Your task to perform on an android device: install app "NewsBreak: Local News & Alerts" Image 0: 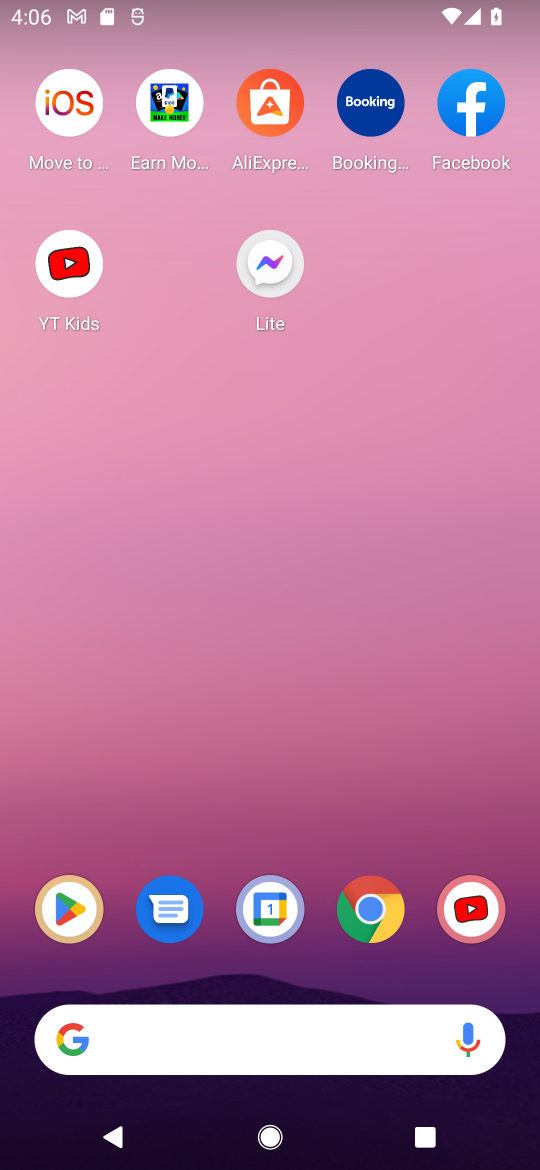
Step 0: click (72, 912)
Your task to perform on an android device: install app "NewsBreak: Local News & Alerts" Image 1: 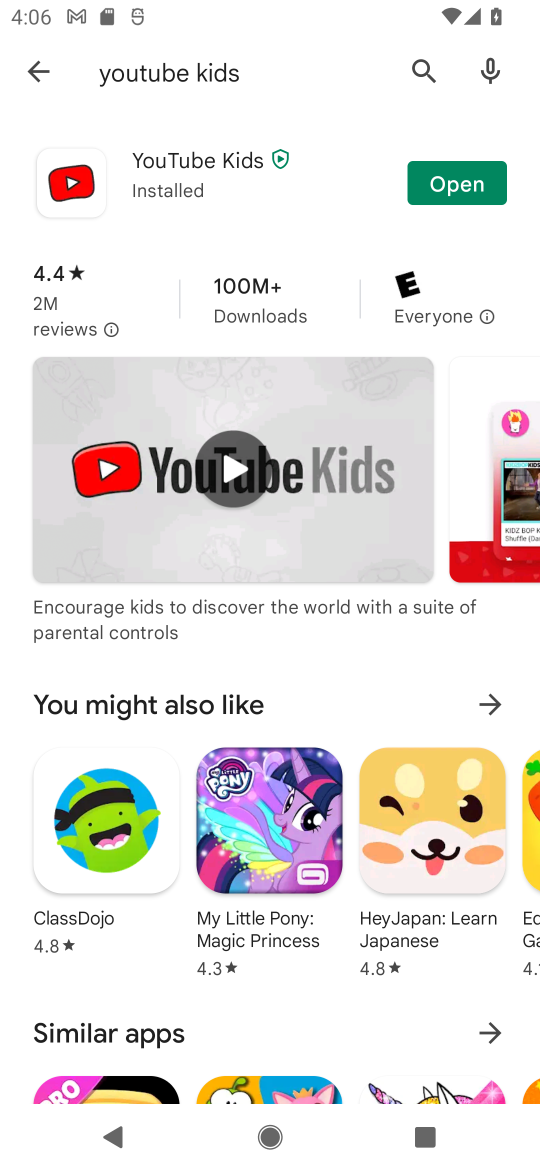
Step 1: click (189, 78)
Your task to perform on an android device: install app "NewsBreak: Local News & Alerts" Image 2: 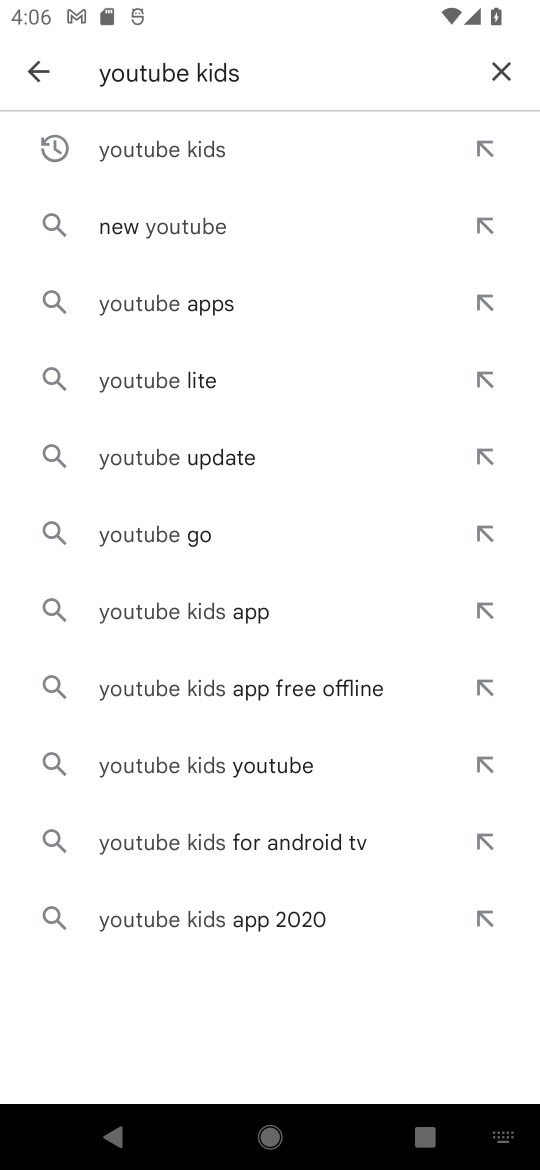
Step 2: click (504, 68)
Your task to perform on an android device: install app "NewsBreak: Local News & Alerts" Image 3: 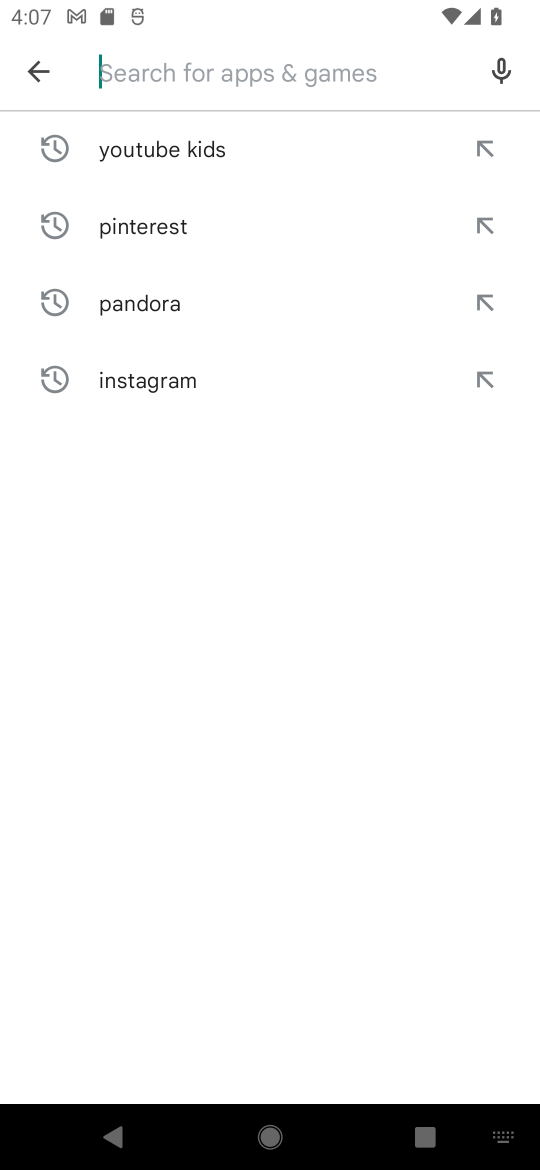
Step 3: type "newsbreak"
Your task to perform on an android device: install app "NewsBreak: Local News & Alerts" Image 4: 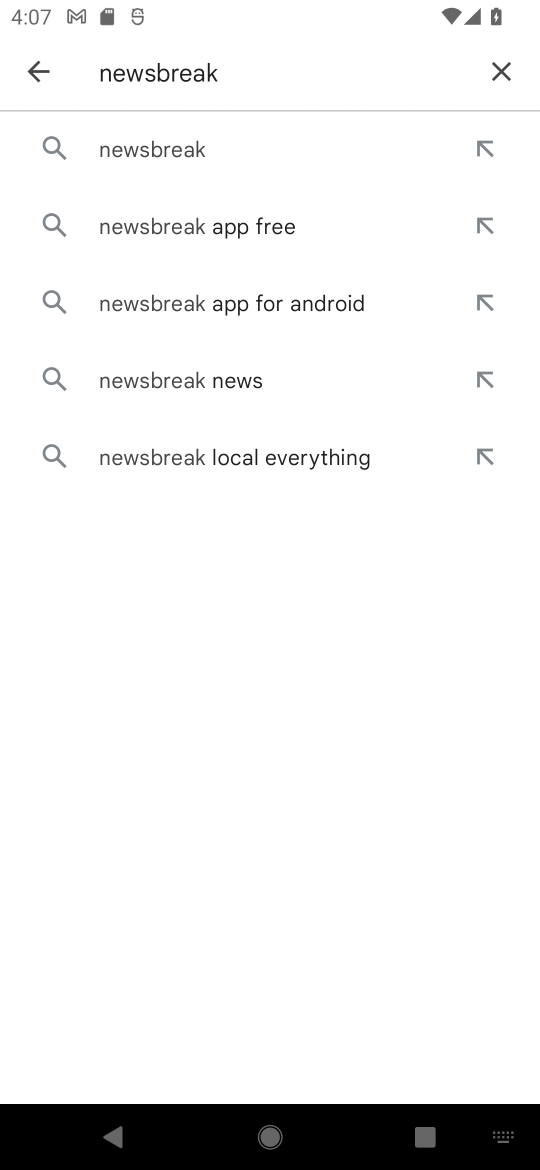
Step 4: click (189, 159)
Your task to perform on an android device: install app "NewsBreak: Local News & Alerts" Image 5: 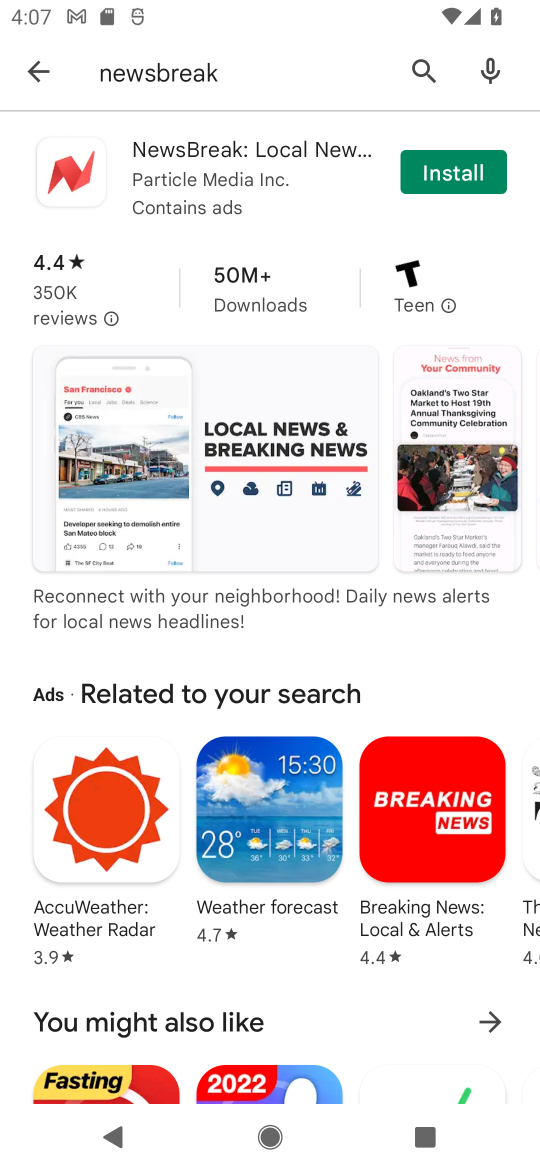
Step 5: click (468, 171)
Your task to perform on an android device: install app "NewsBreak: Local News & Alerts" Image 6: 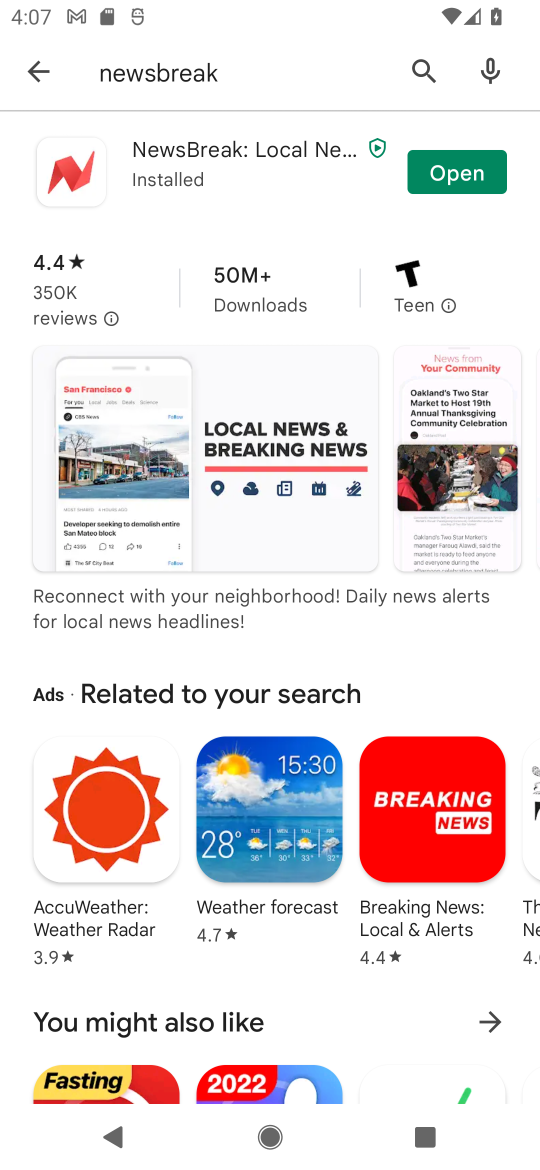
Step 6: task complete